Your task to perform on an android device: search for starred emails in the gmail app Image 0: 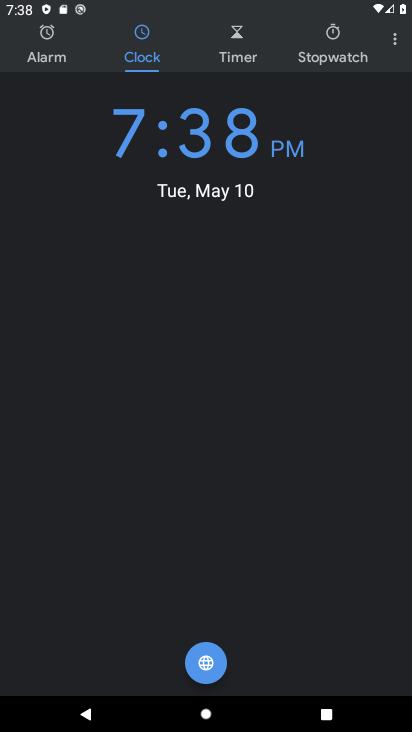
Step 0: press home button
Your task to perform on an android device: search for starred emails in the gmail app Image 1: 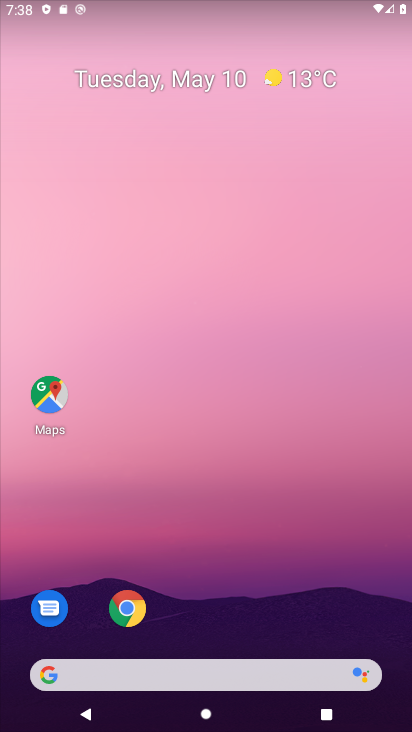
Step 1: drag from (167, 677) to (340, 75)
Your task to perform on an android device: search for starred emails in the gmail app Image 2: 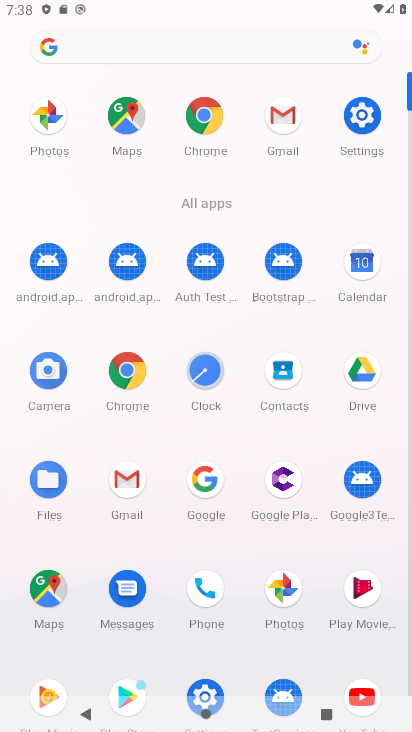
Step 2: click (280, 122)
Your task to perform on an android device: search for starred emails in the gmail app Image 3: 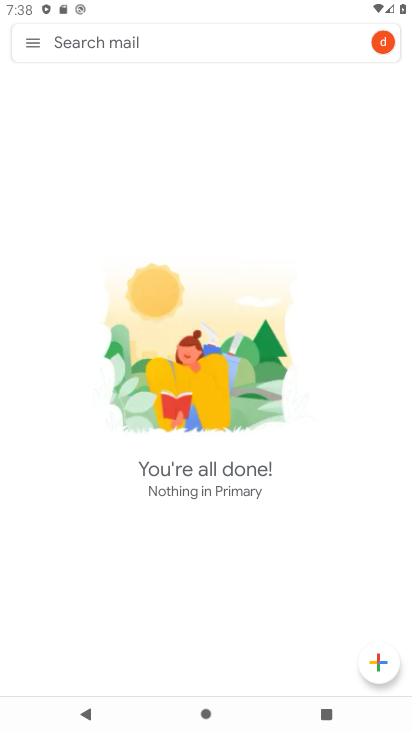
Step 3: click (32, 40)
Your task to perform on an android device: search for starred emails in the gmail app Image 4: 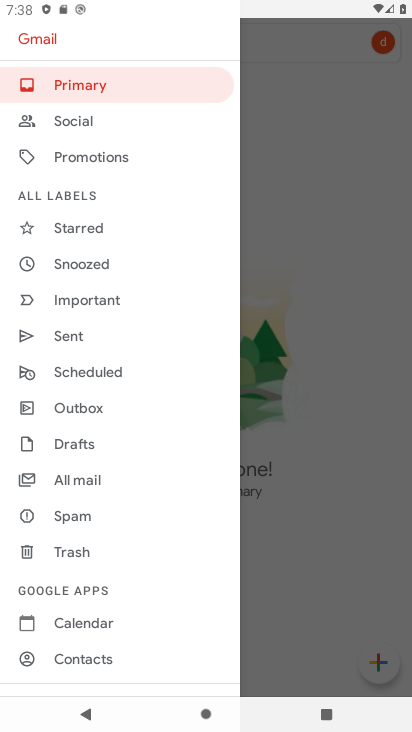
Step 4: click (90, 225)
Your task to perform on an android device: search for starred emails in the gmail app Image 5: 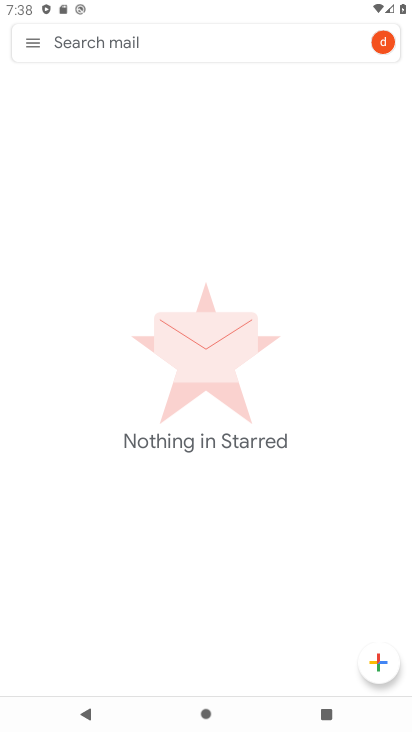
Step 5: task complete